Your task to perform on an android device: turn off picture-in-picture Image 0: 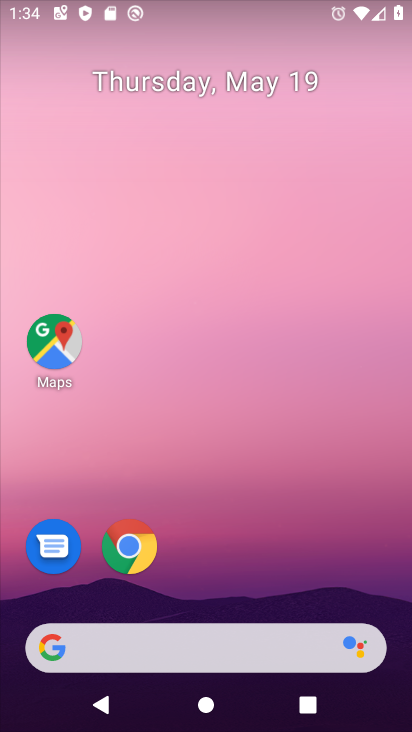
Step 0: drag from (197, 470) to (192, 244)
Your task to perform on an android device: turn off picture-in-picture Image 1: 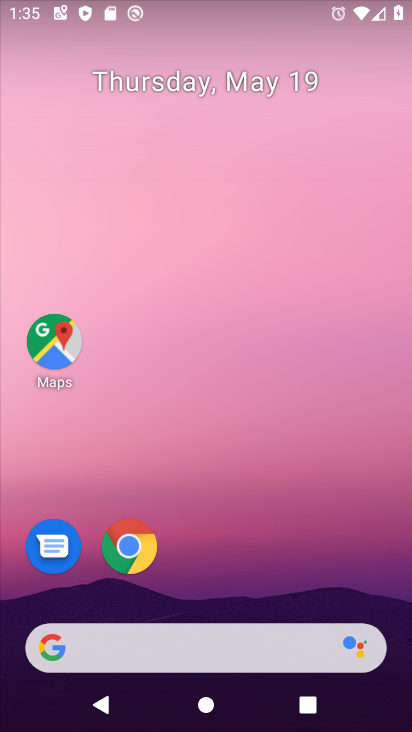
Step 1: drag from (232, 501) to (272, 142)
Your task to perform on an android device: turn off picture-in-picture Image 2: 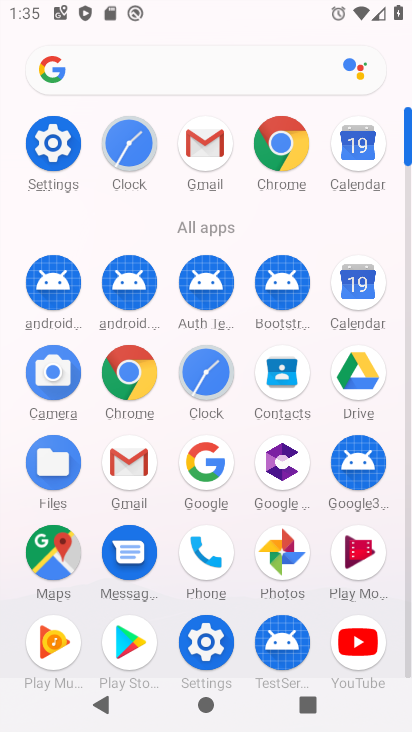
Step 2: click (54, 136)
Your task to perform on an android device: turn off picture-in-picture Image 3: 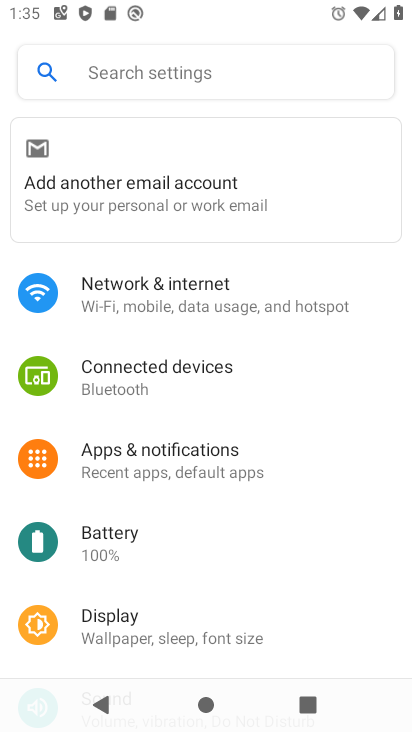
Step 3: click (181, 464)
Your task to perform on an android device: turn off picture-in-picture Image 4: 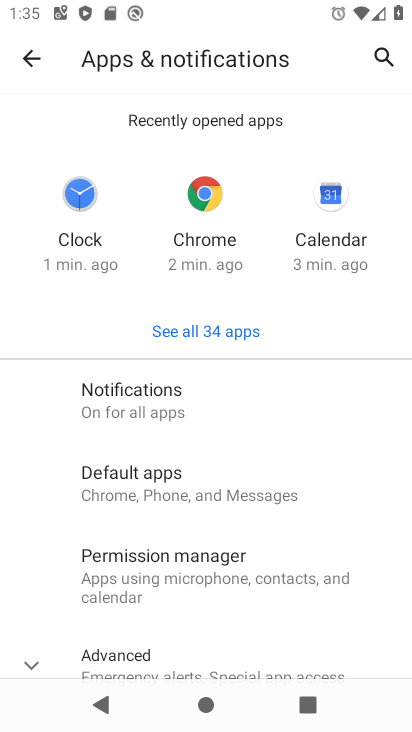
Step 4: drag from (203, 607) to (236, 298)
Your task to perform on an android device: turn off picture-in-picture Image 5: 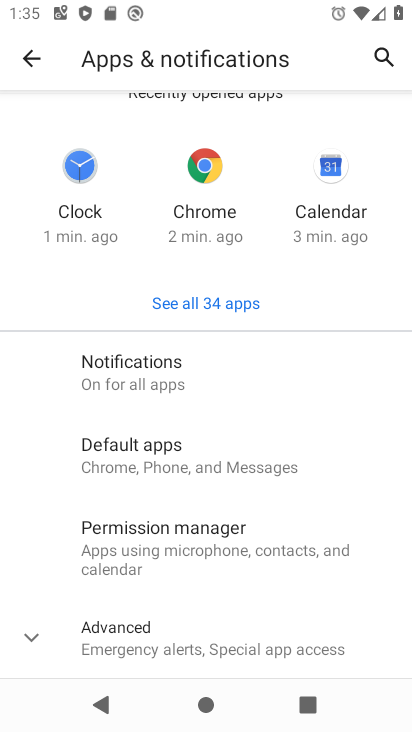
Step 5: click (43, 641)
Your task to perform on an android device: turn off picture-in-picture Image 6: 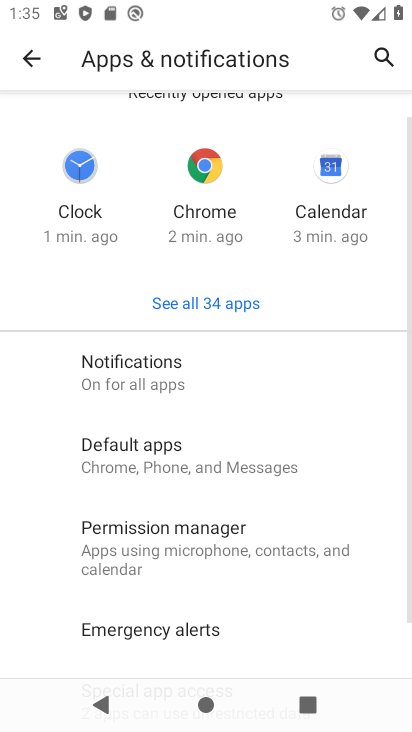
Step 6: drag from (157, 487) to (190, 84)
Your task to perform on an android device: turn off picture-in-picture Image 7: 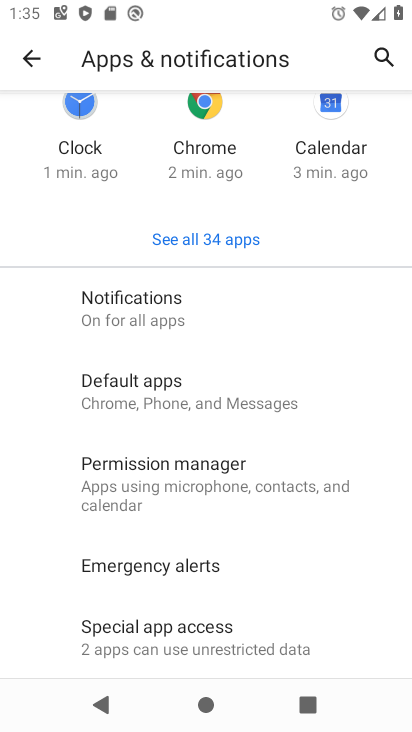
Step 7: click (190, 630)
Your task to perform on an android device: turn off picture-in-picture Image 8: 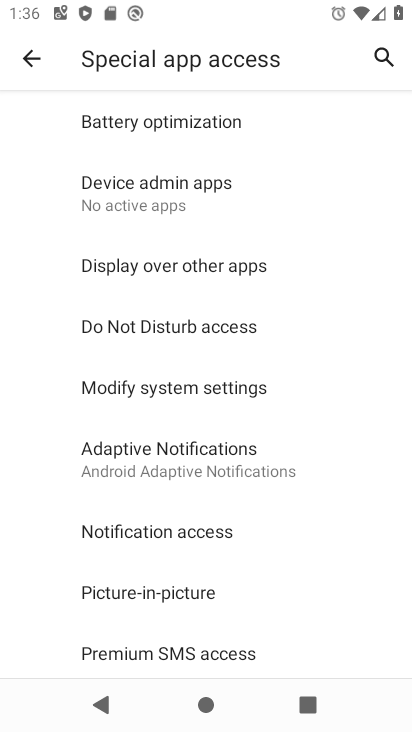
Step 8: click (208, 600)
Your task to perform on an android device: turn off picture-in-picture Image 9: 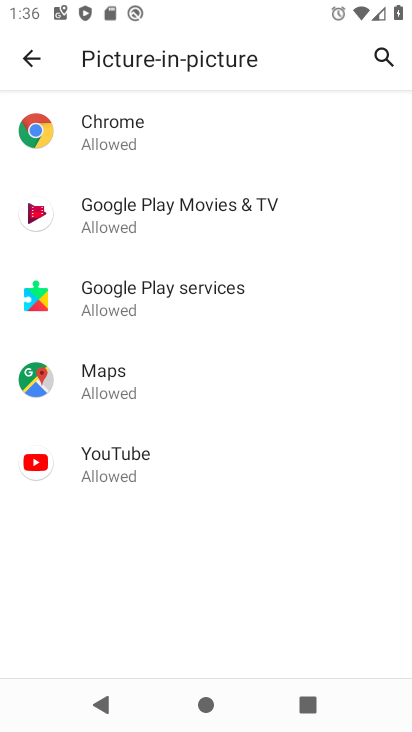
Step 9: click (167, 140)
Your task to perform on an android device: turn off picture-in-picture Image 10: 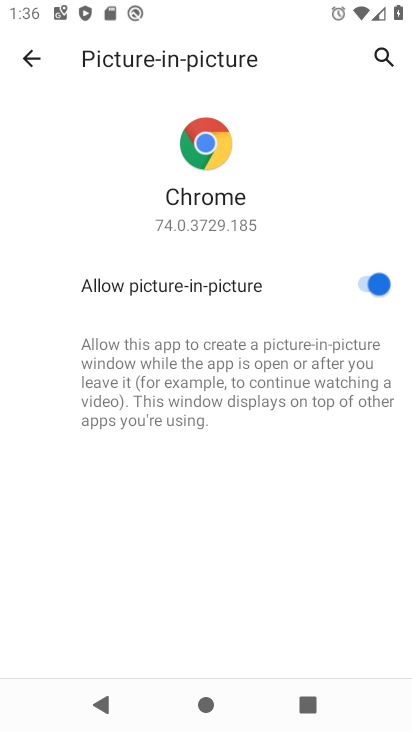
Step 10: click (368, 283)
Your task to perform on an android device: turn off picture-in-picture Image 11: 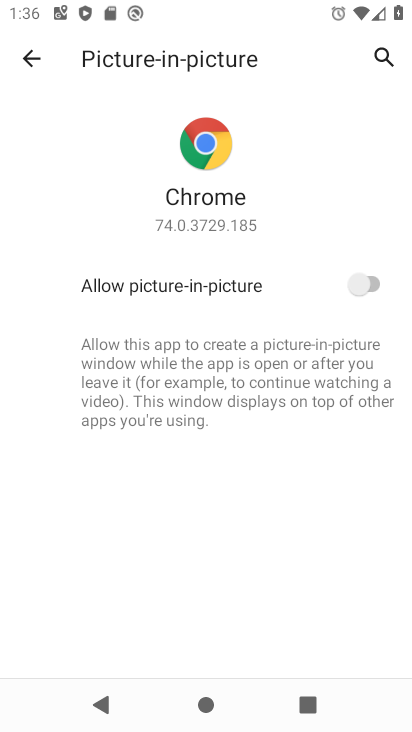
Step 11: task complete